Your task to perform on an android device: Search for seafood restaurants on Google Maps Image 0: 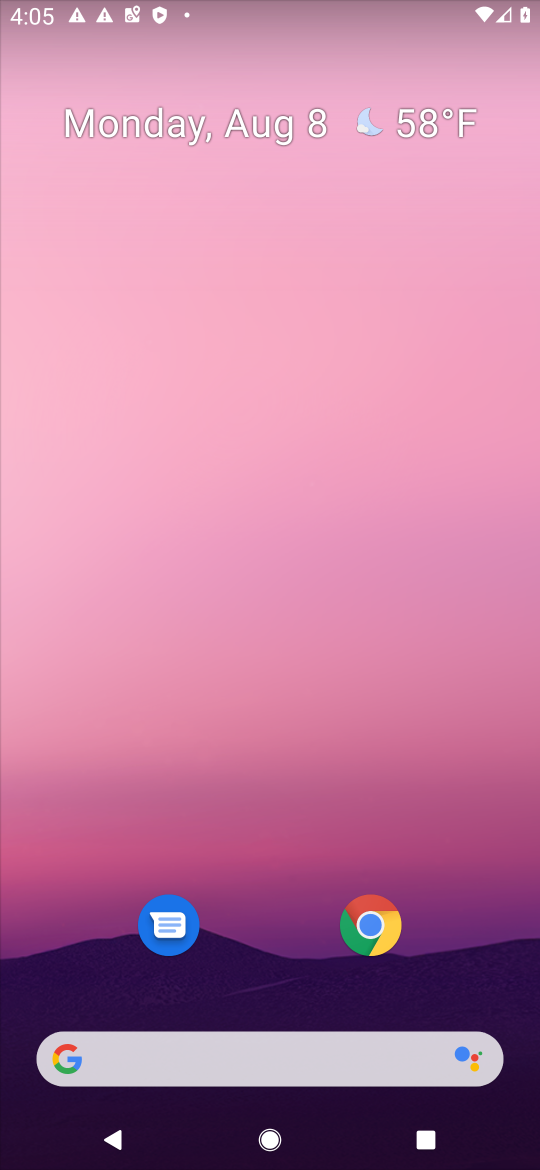
Step 0: drag from (290, 1028) to (344, 83)
Your task to perform on an android device: Search for seafood restaurants on Google Maps Image 1: 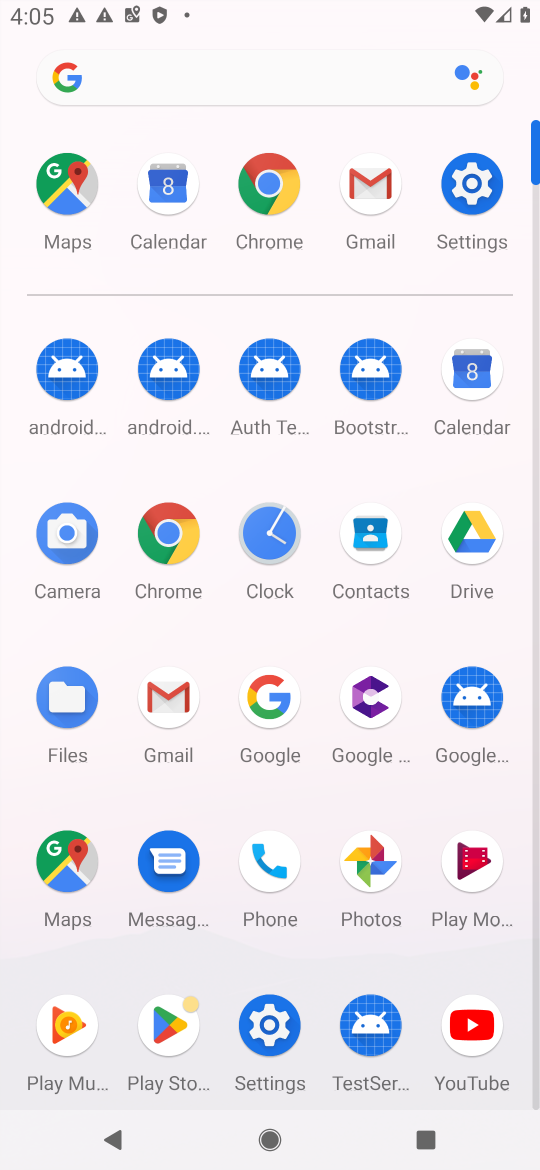
Step 1: click (73, 856)
Your task to perform on an android device: Search for seafood restaurants on Google Maps Image 2: 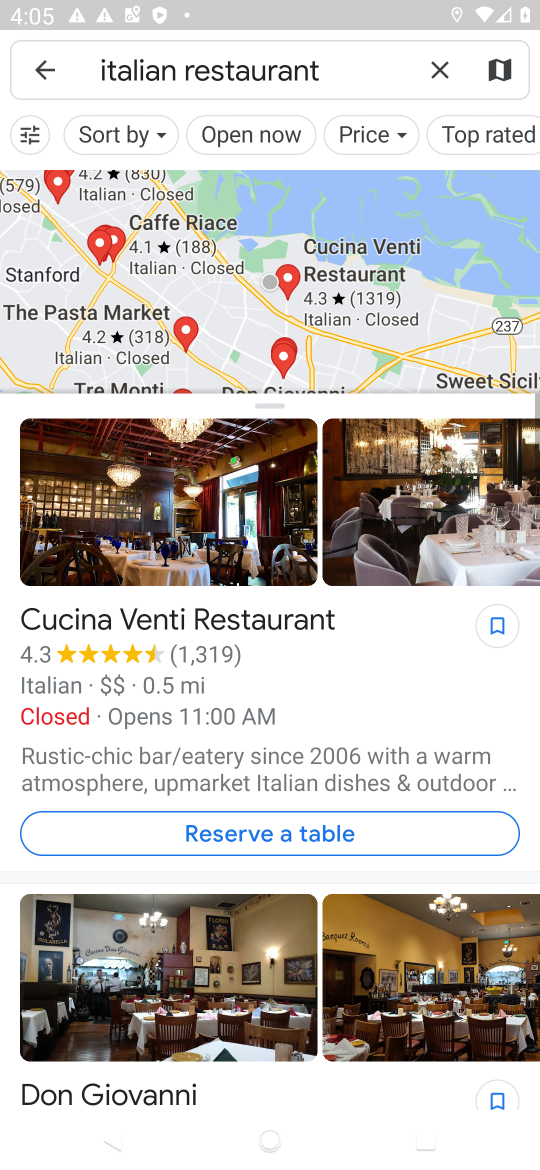
Step 2: click (440, 68)
Your task to perform on an android device: Search for seafood restaurants on Google Maps Image 3: 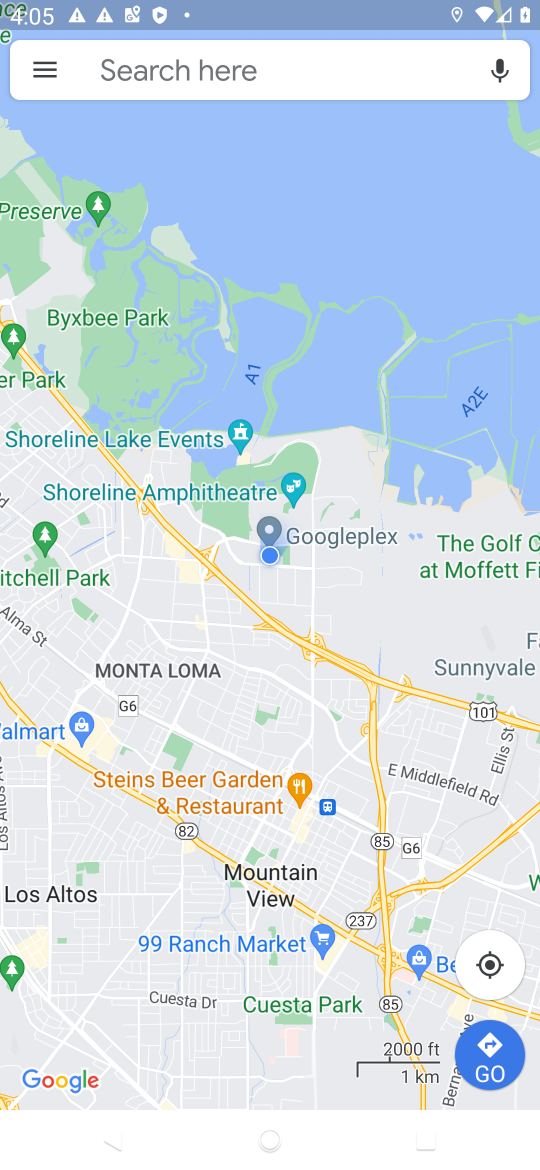
Step 3: click (335, 86)
Your task to perform on an android device: Search for seafood restaurants on Google Maps Image 4: 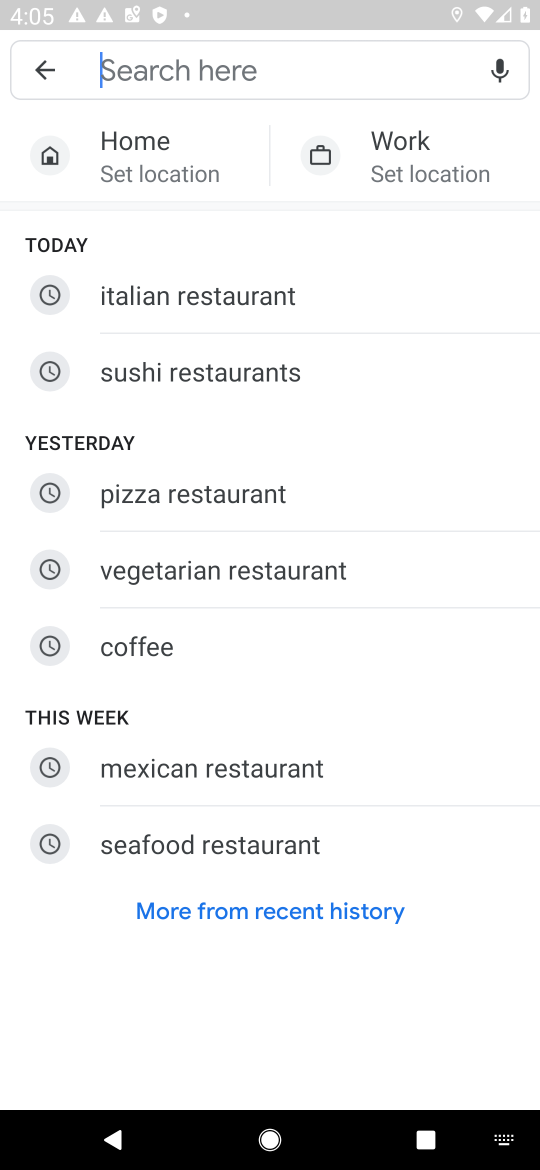
Step 4: type "seafood restaurants"
Your task to perform on an android device: Search for seafood restaurants on Google Maps Image 5: 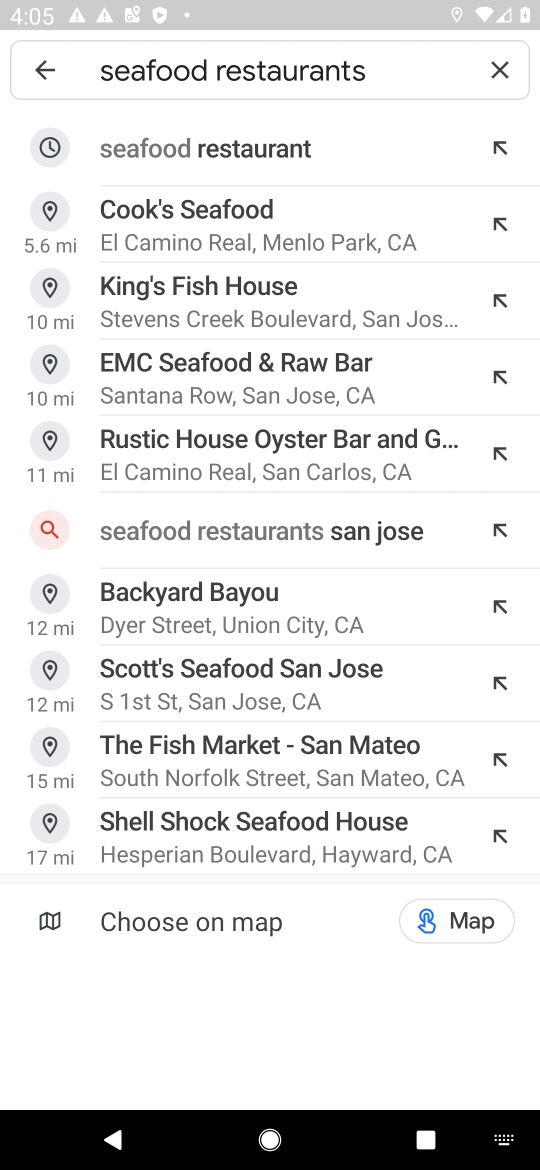
Step 5: click (216, 155)
Your task to perform on an android device: Search for seafood restaurants on Google Maps Image 6: 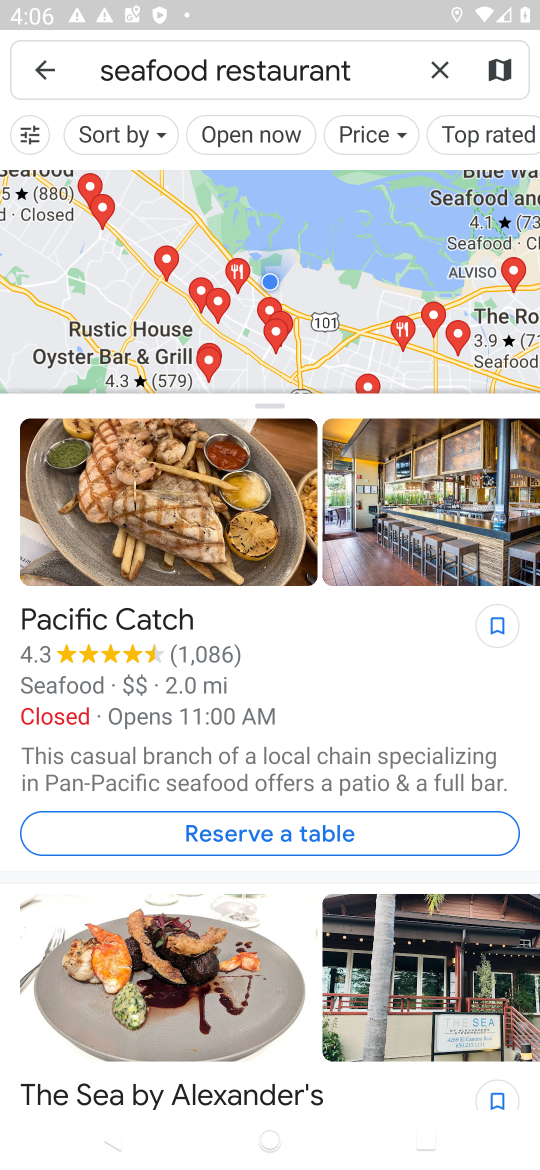
Step 6: task complete